Your task to perform on an android device: Search for hotels in Paris Image 0: 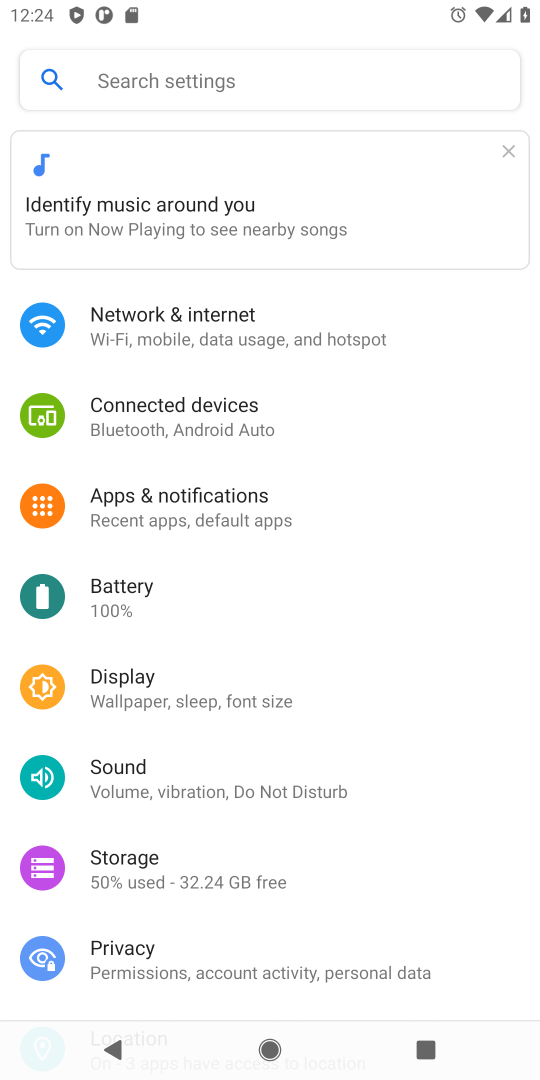
Step 0: press home button
Your task to perform on an android device: Search for hotels in Paris Image 1: 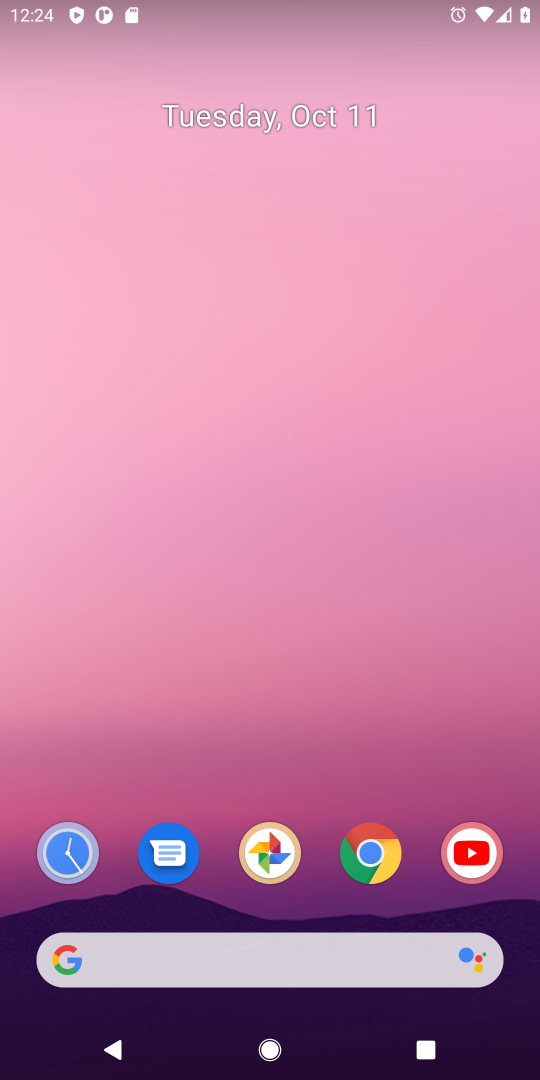
Step 1: drag from (306, 932) to (356, 66)
Your task to perform on an android device: Search for hotels in Paris Image 2: 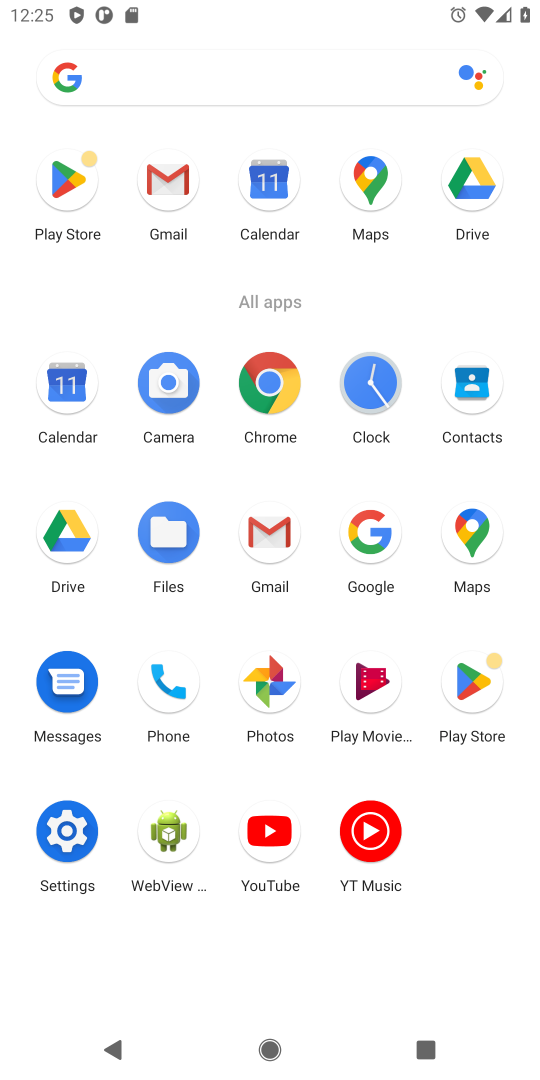
Step 2: click (266, 384)
Your task to perform on an android device: Search for hotels in Paris Image 3: 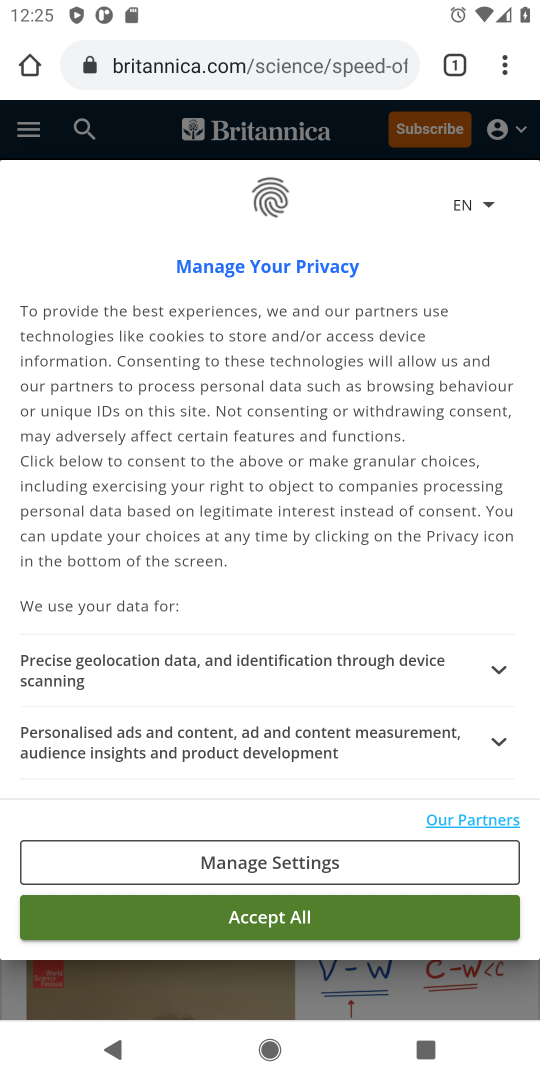
Step 3: click (285, 51)
Your task to perform on an android device: Search for hotels in Paris Image 4: 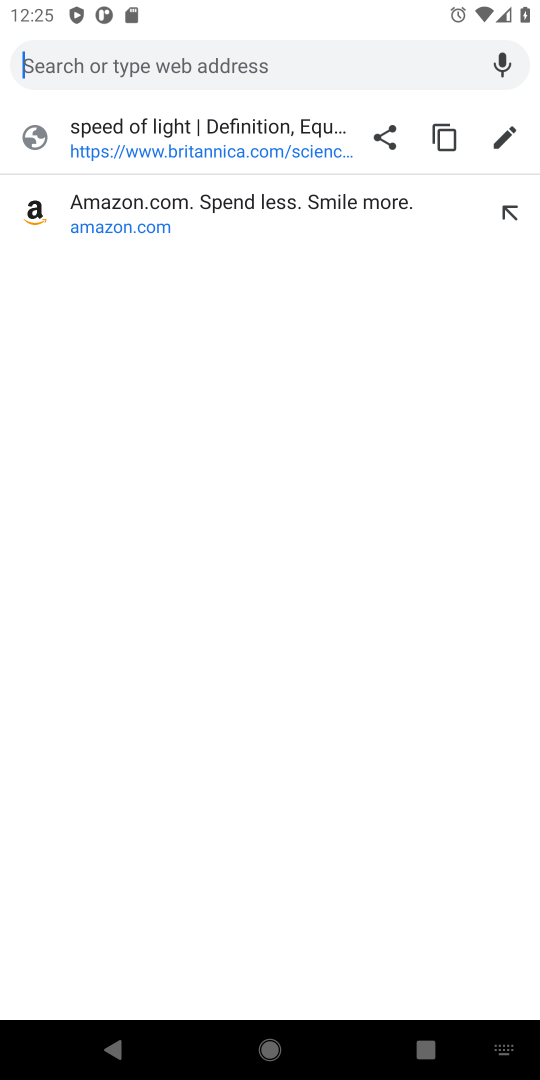
Step 4: type "hotels in Paris"
Your task to perform on an android device: Search for hotels in Paris Image 5: 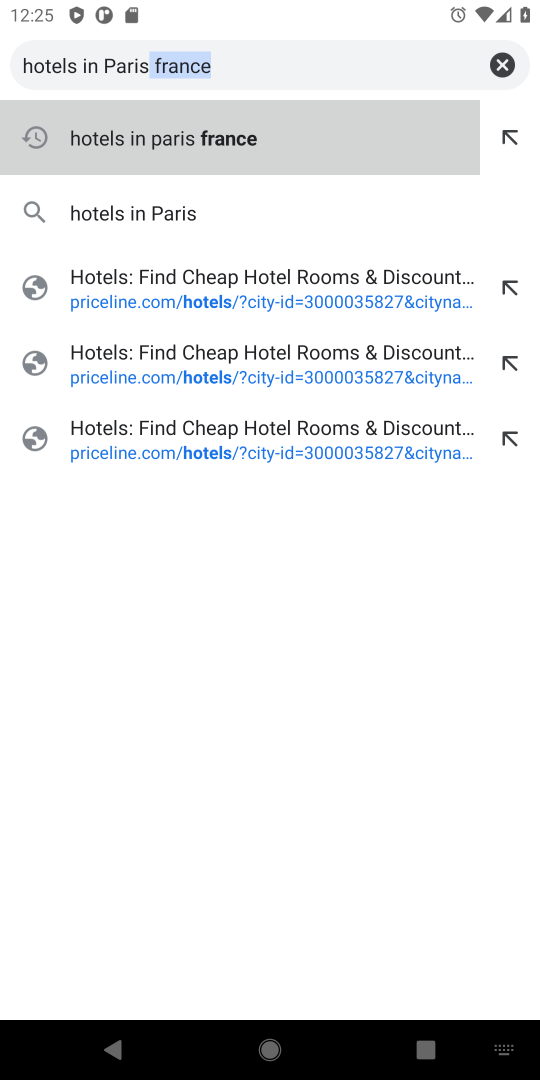
Step 5: type ""
Your task to perform on an android device: Search for hotels in Paris Image 6: 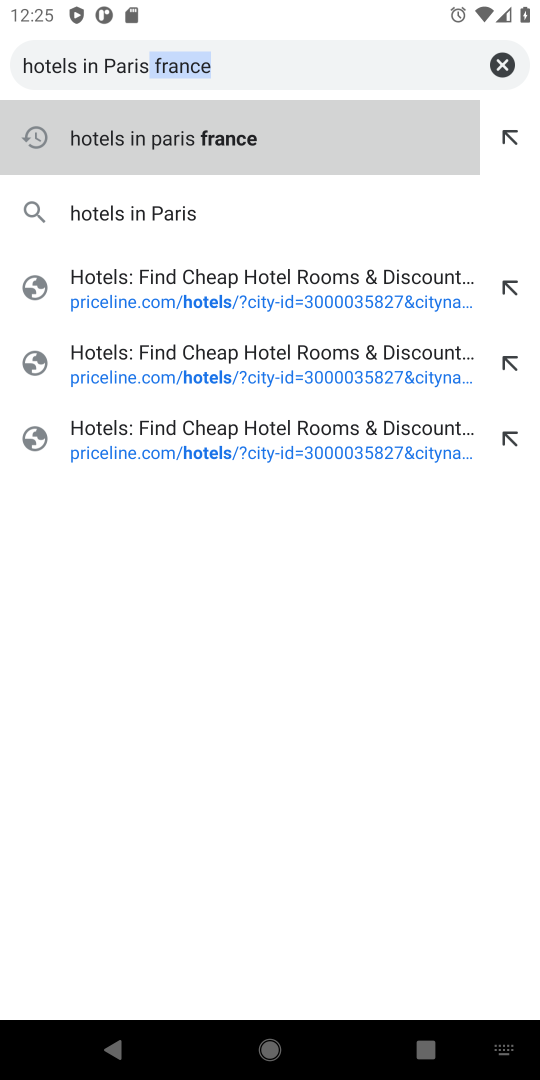
Step 6: press enter
Your task to perform on an android device: Search for hotels in Paris Image 7: 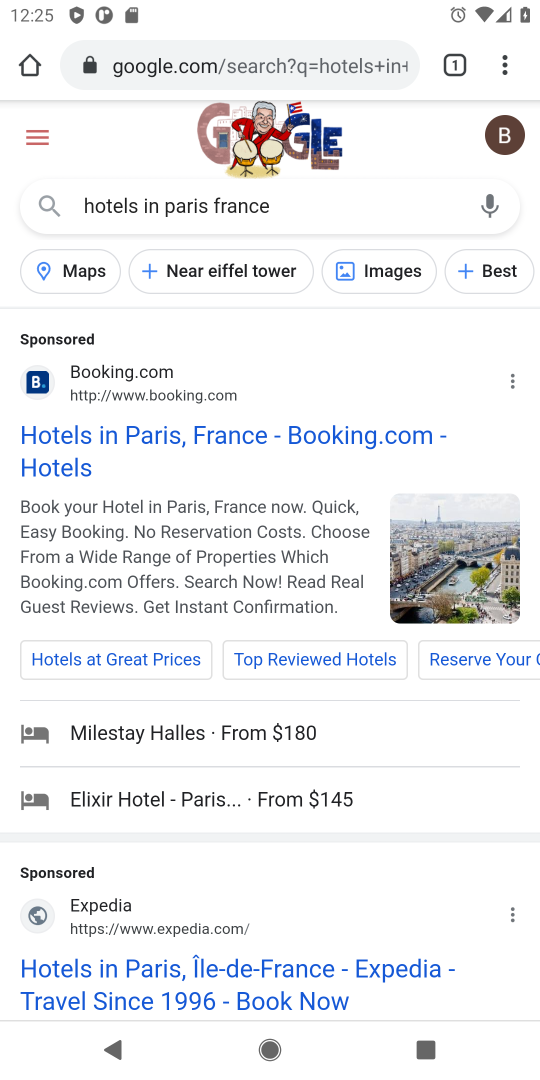
Step 7: drag from (283, 758) to (231, 366)
Your task to perform on an android device: Search for hotels in Paris Image 8: 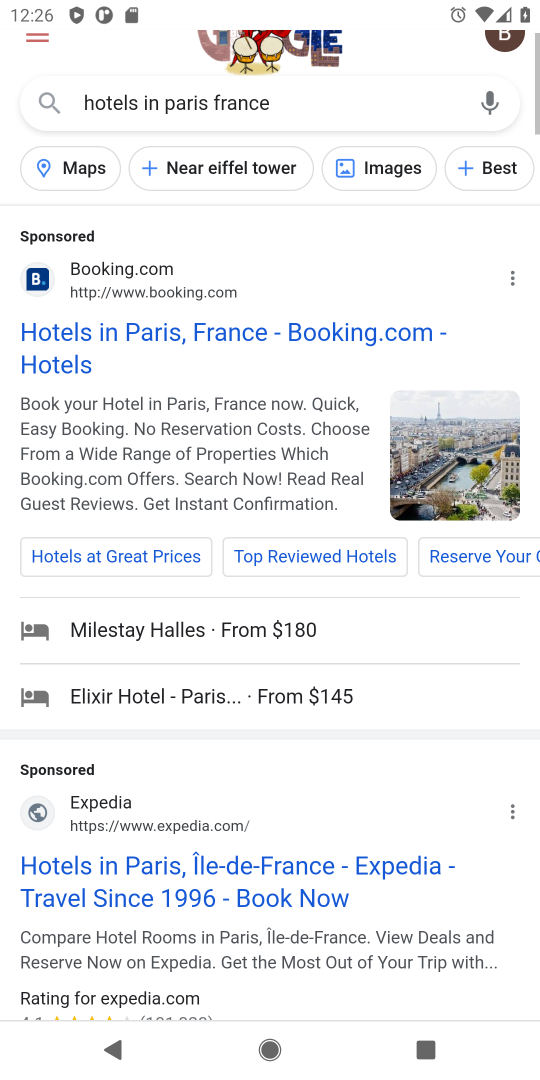
Step 8: drag from (184, 657) to (282, 350)
Your task to perform on an android device: Search for hotels in Paris Image 9: 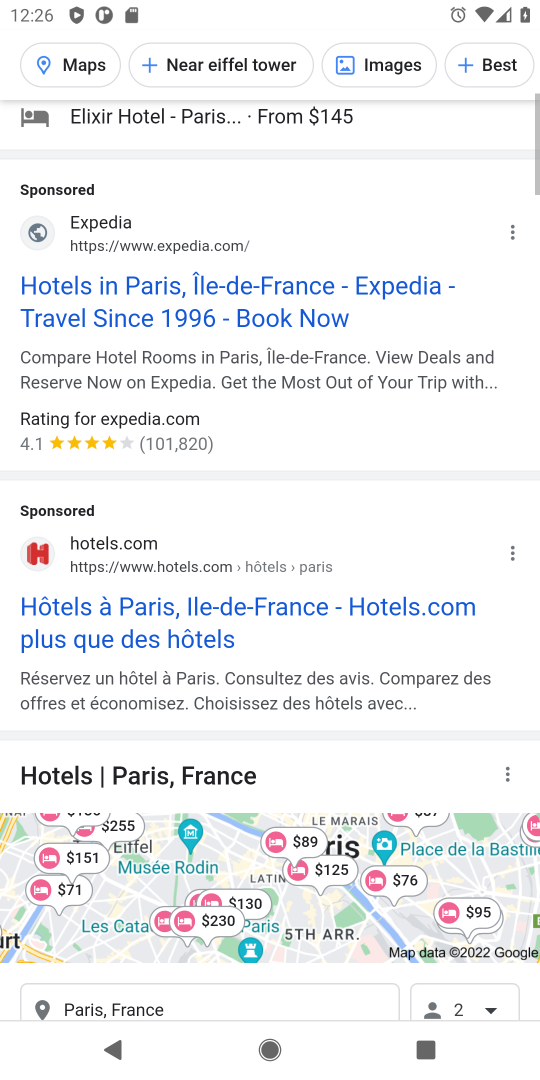
Step 9: drag from (266, 503) to (268, 420)
Your task to perform on an android device: Search for hotels in Paris Image 10: 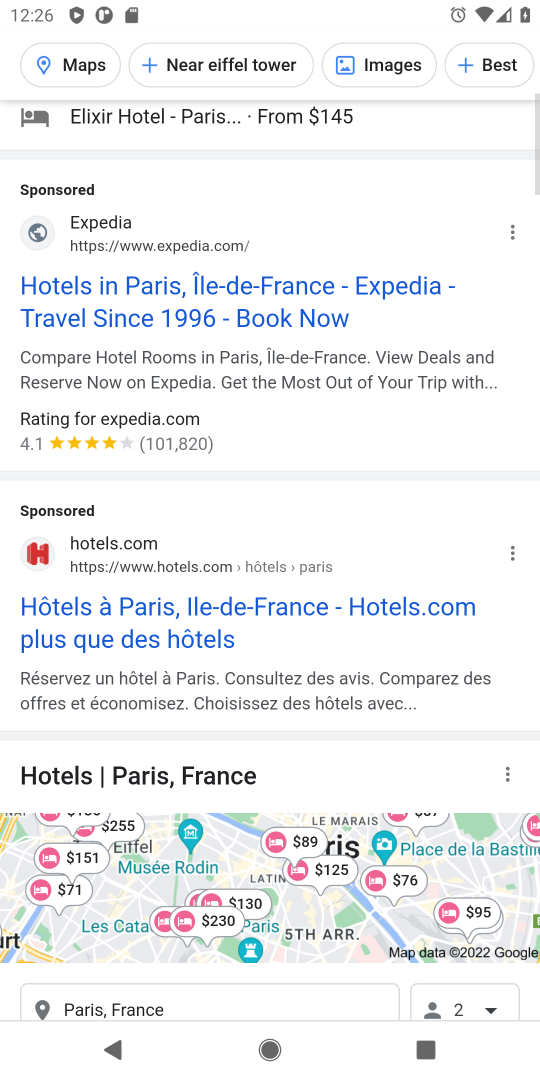
Step 10: drag from (231, 747) to (285, 357)
Your task to perform on an android device: Search for hotels in Paris Image 11: 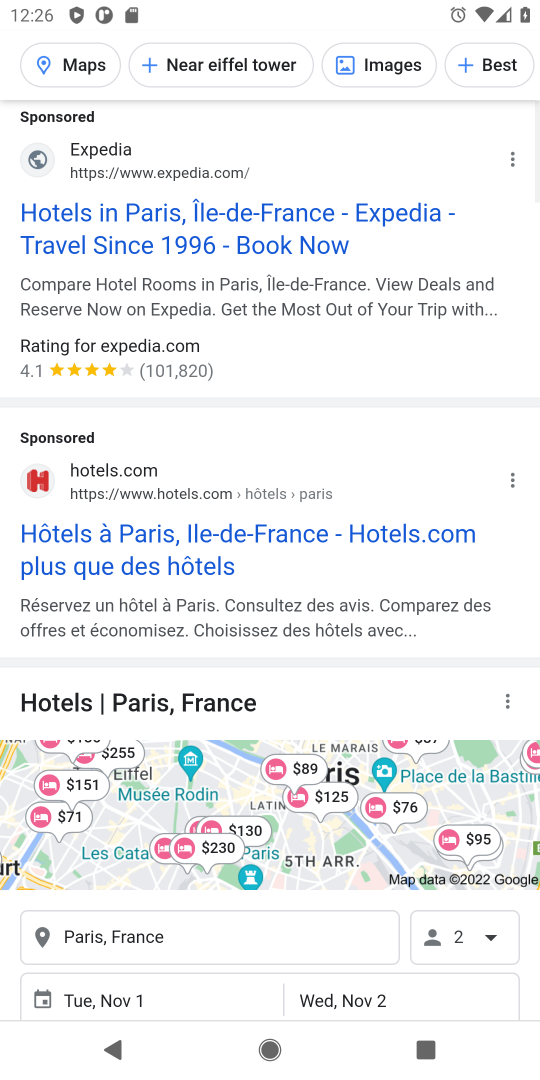
Step 11: drag from (269, 685) to (327, 325)
Your task to perform on an android device: Search for hotels in Paris Image 12: 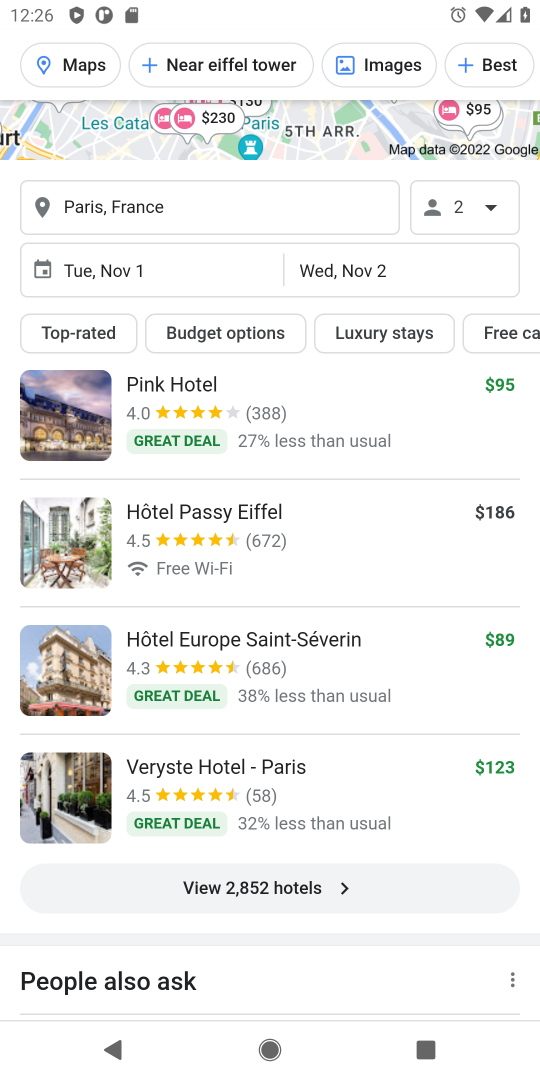
Step 12: drag from (310, 455) to (373, 987)
Your task to perform on an android device: Search for hotels in Paris Image 13: 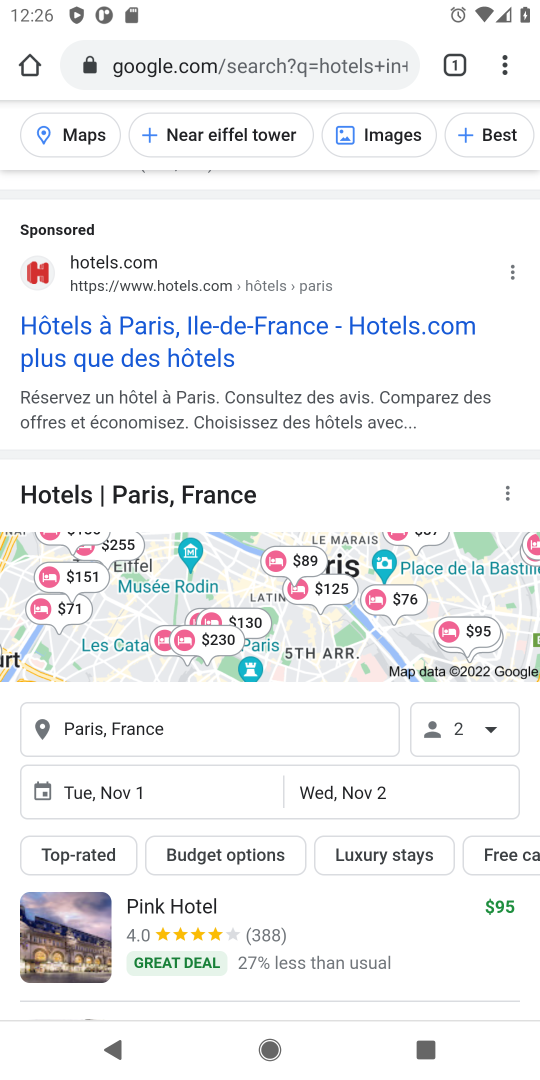
Step 13: click (187, 323)
Your task to perform on an android device: Search for hotels in Paris Image 14: 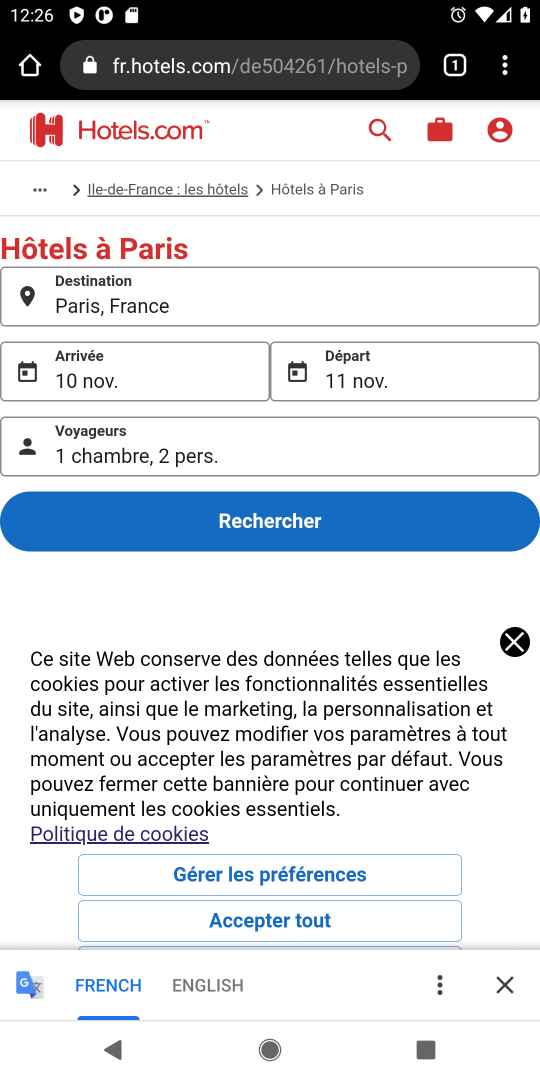
Step 14: task complete